Your task to perform on an android device: Open the web browser Image 0: 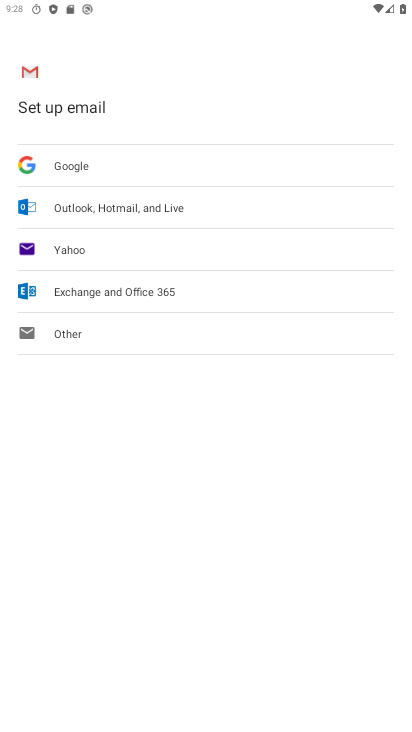
Step 0: press home button
Your task to perform on an android device: Open the web browser Image 1: 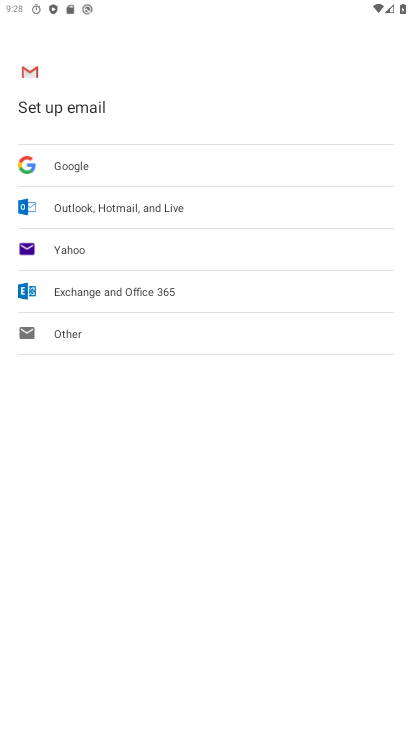
Step 1: drag from (79, 642) to (101, 243)
Your task to perform on an android device: Open the web browser Image 2: 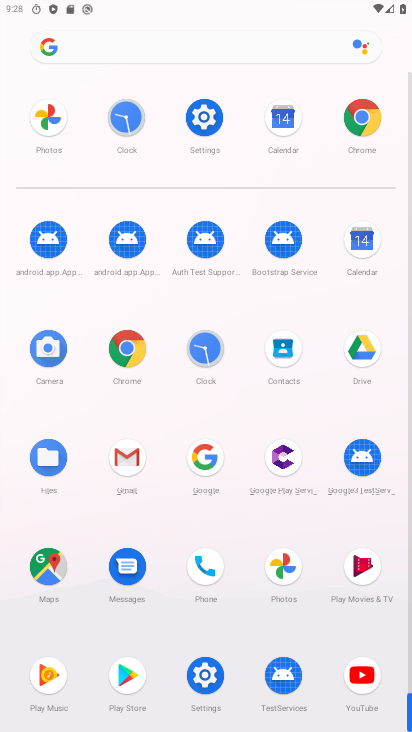
Step 2: click (121, 342)
Your task to perform on an android device: Open the web browser Image 3: 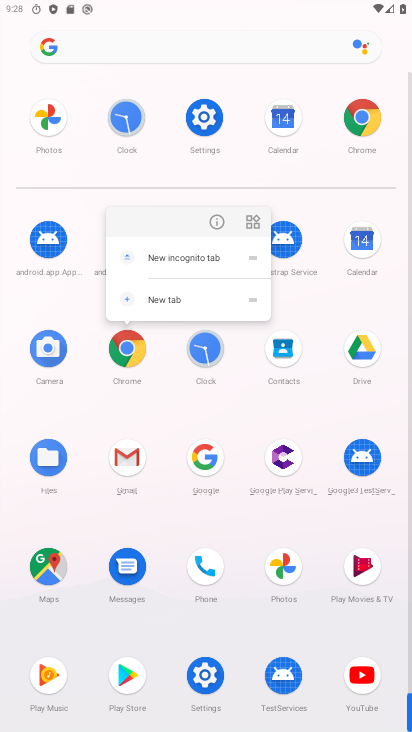
Step 3: click (217, 216)
Your task to perform on an android device: Open the web browser Image 4: 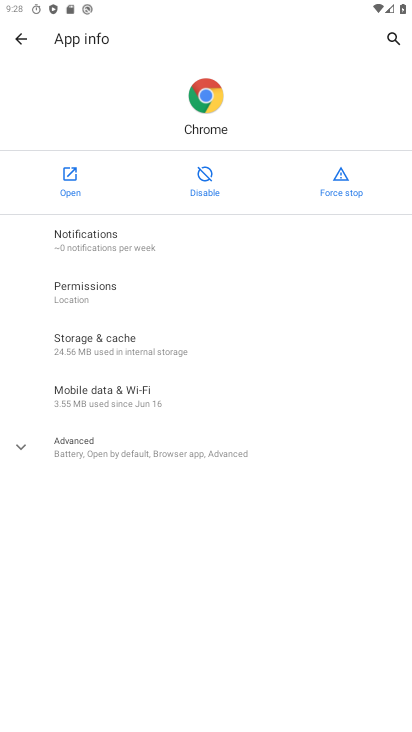
Step 4: click (76, 192)
Your task to perform on an android device: Open the web browser Image 5: 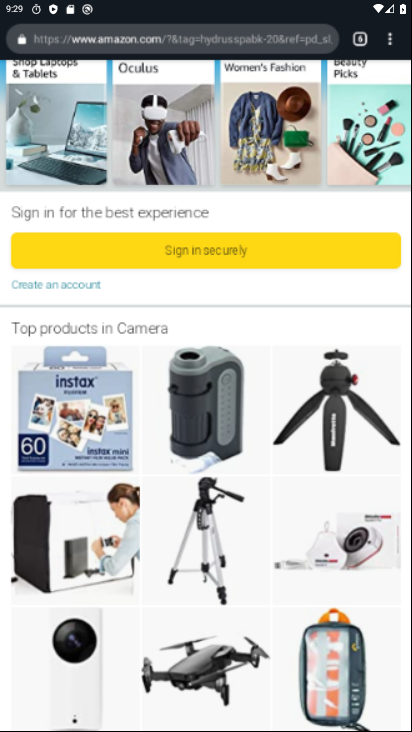
Step 5: task complete